Your task to perform on an android device: toggle notifications settings in the gmail app Image 0: 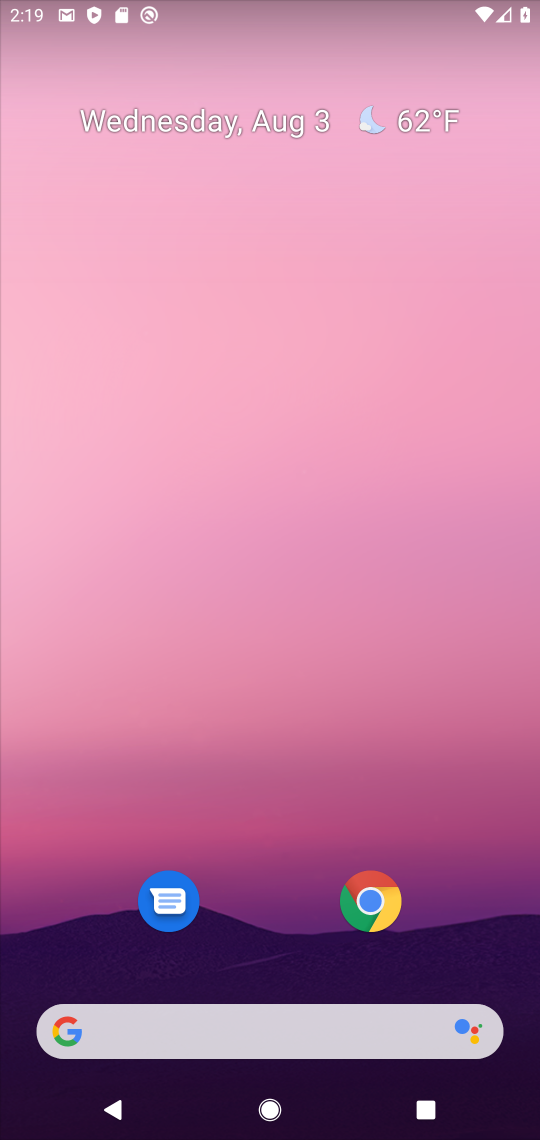
Step 0: drag from (225, 981) to (229, 423)
Your task to perform on an android device: toggle notifications settings in the gmail app Image 1: 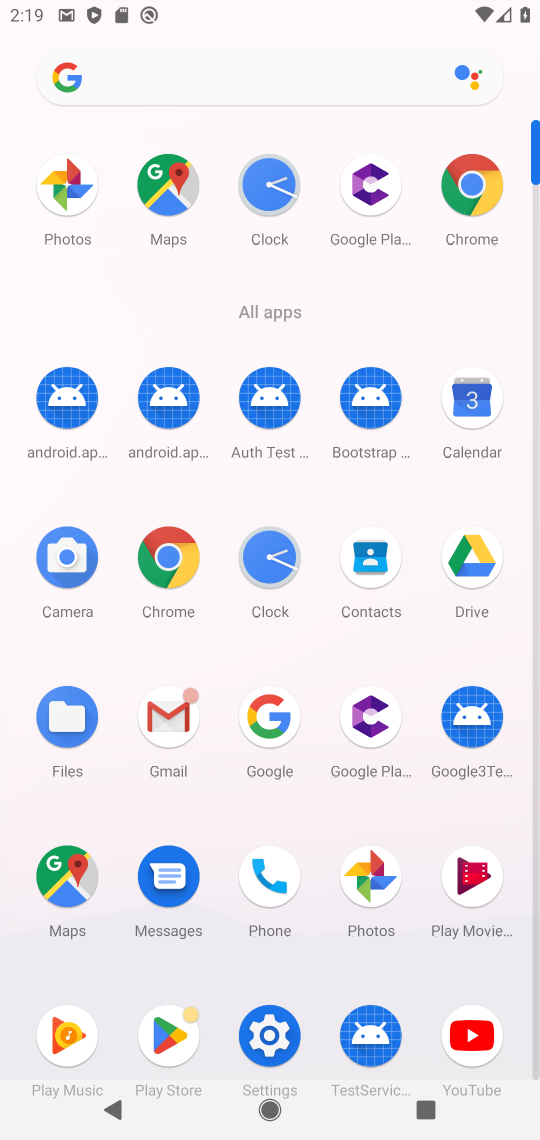
Step 1: click (156, 719)
Your task to perform on an android device: toggle notifications settings in the gmail app Image 2: 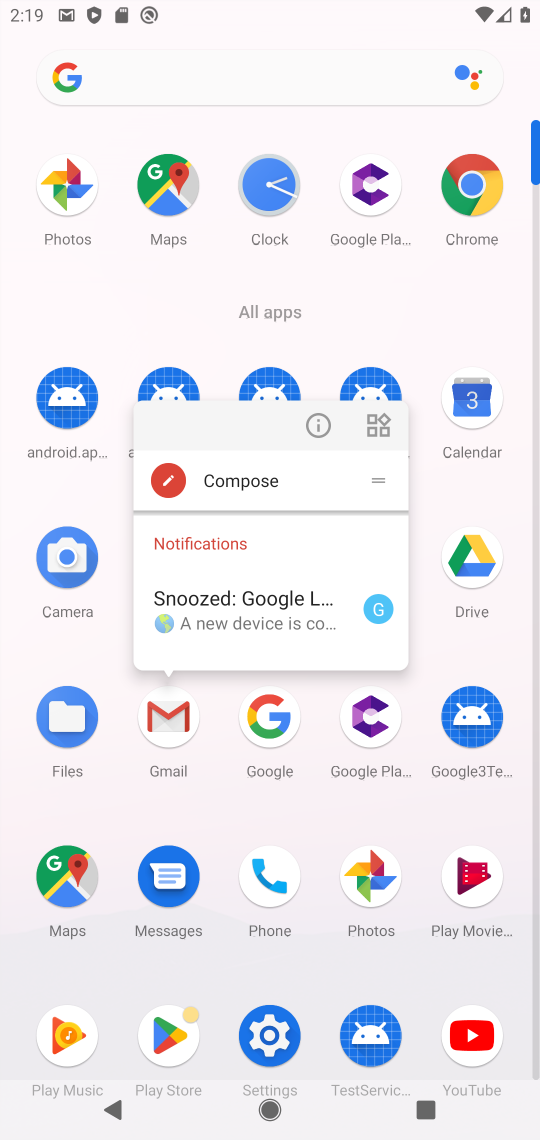
Step 2: click (156, 719)
Your task to perform on an android device: toggle notifications settings in the gmail app Image 3: 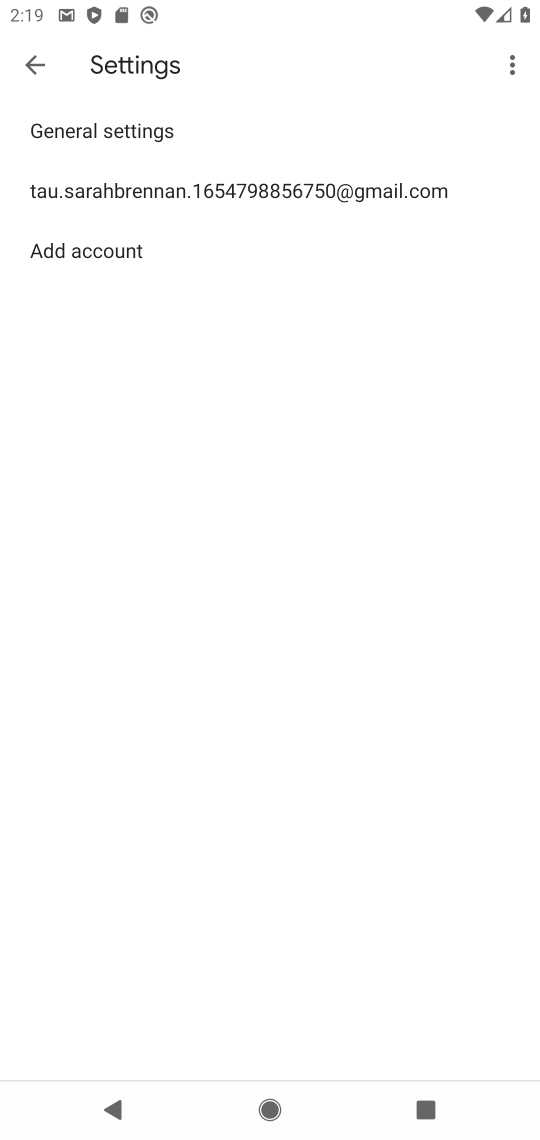
Step 3: click (122, 199)
Your task to perform on an android device: toggle notifications settings in the gmail app Image 4: 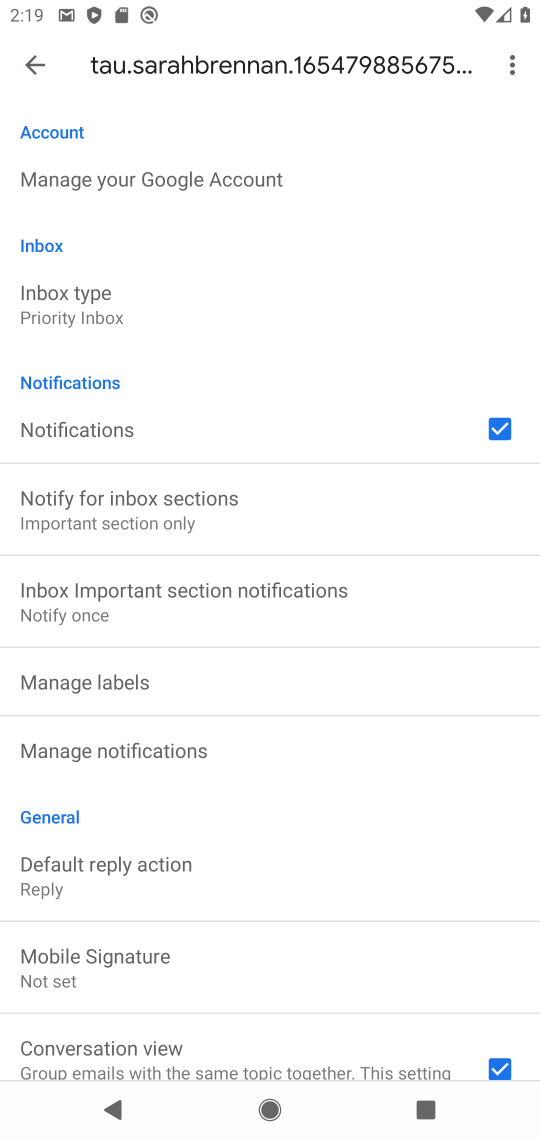
Step 4: click (101, 436)
Your task to perform on an android device: toggle notifications settings in the gmail app Image 5: 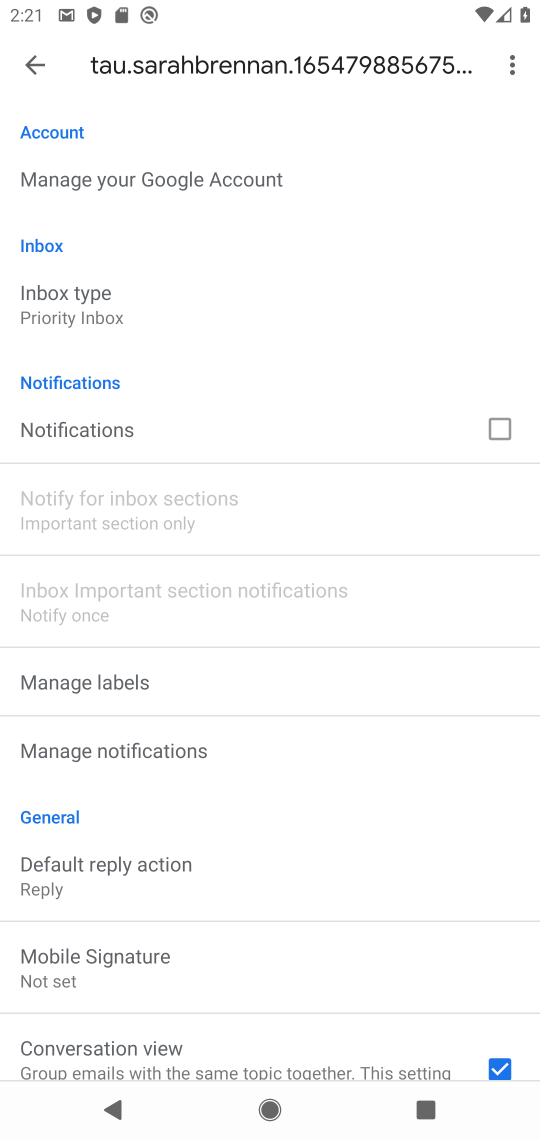
Step 5: task complete